Your task to perform on an android device: Go to Wikipedia Image 0: 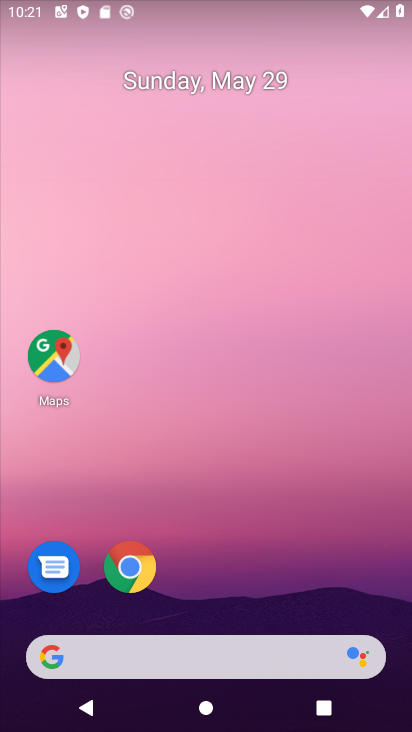
Step 0: click (130, 567)
Your task to perform on an android device: Go to Wikipedia Image 1: 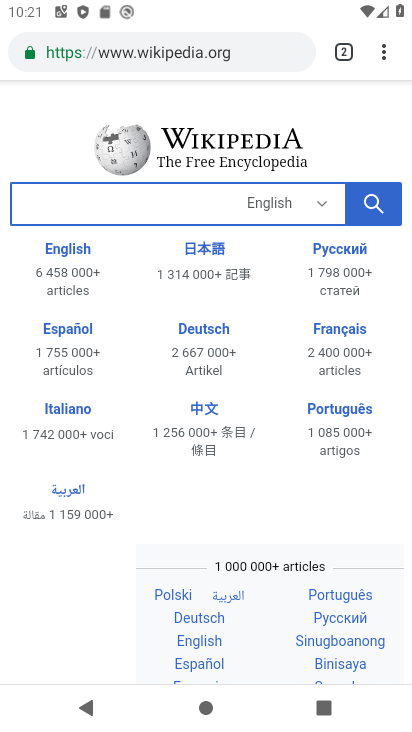
Step 1: task complete